Your task to perform on an android device: Find coffee shops on Maps Image 0: 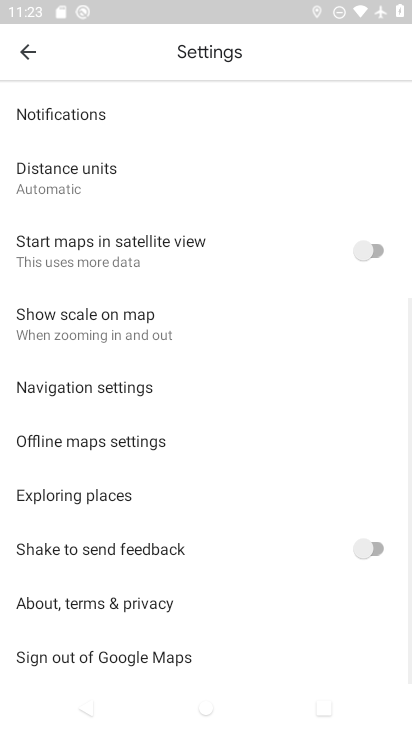
Step 0: press home button
Your task to perform on an android device: Find coffee shops on Maps Image 1: 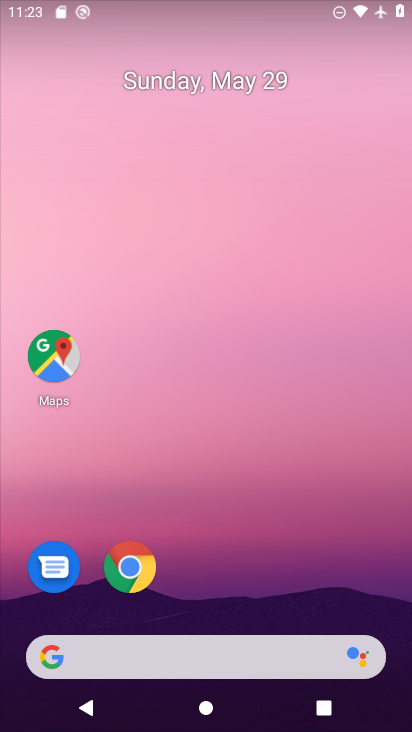
Step 1: click (57, 358)
Your task to perform on an android device: Find coffee shops on Maps Image 2: 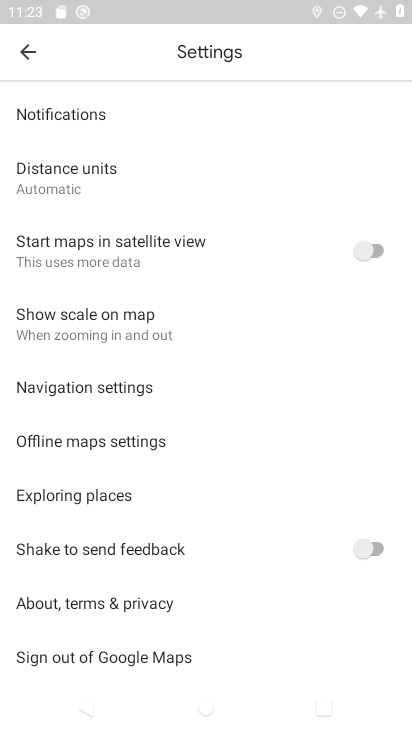
Step 2: press back button
Your task to perform on an android device: Find coffee shops on Maps Image 3: 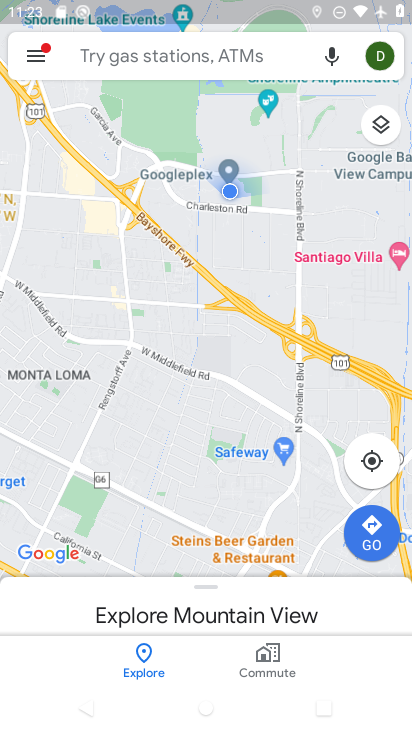
Step 3: click (167, 57)
Your task to perform on an android device: Find coffee shops on Maps Image 4: 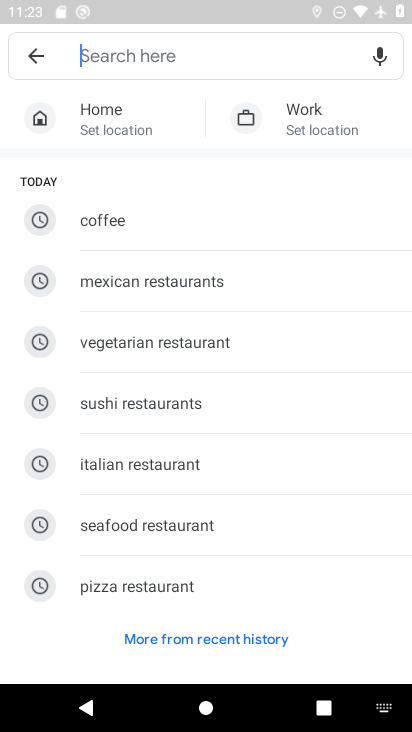
Step 4: type "coffee shop"
Your task to perform on an android device: Find coffee shops on Maps Image 5: 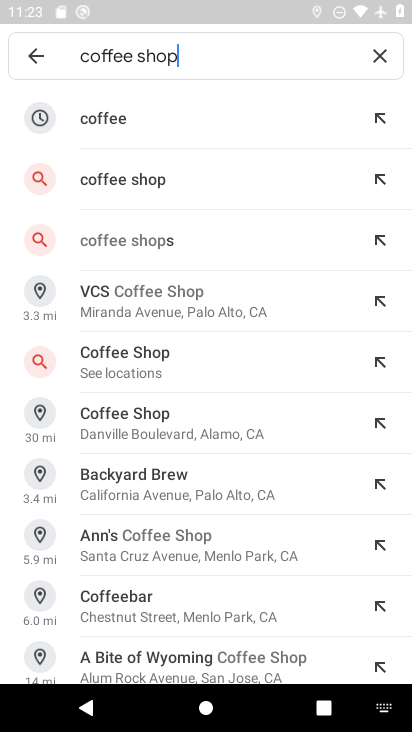
Step 5: click (141, 180)
Your task to perform on an android device: Find coffee shops on Maps Image 6: 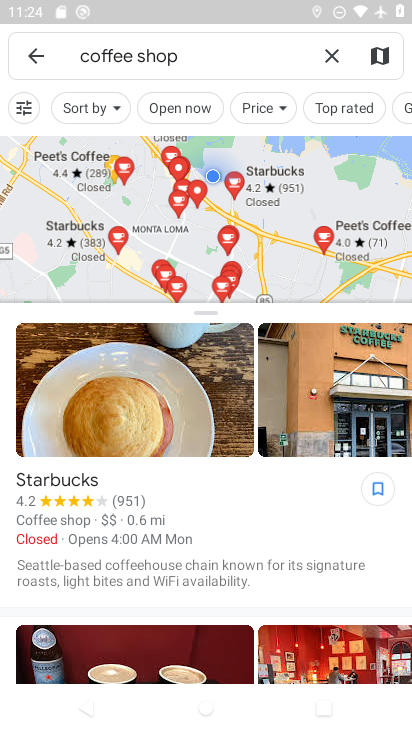
Step 6: task complete